Your task to perform on an android device: check data usage Image 0: 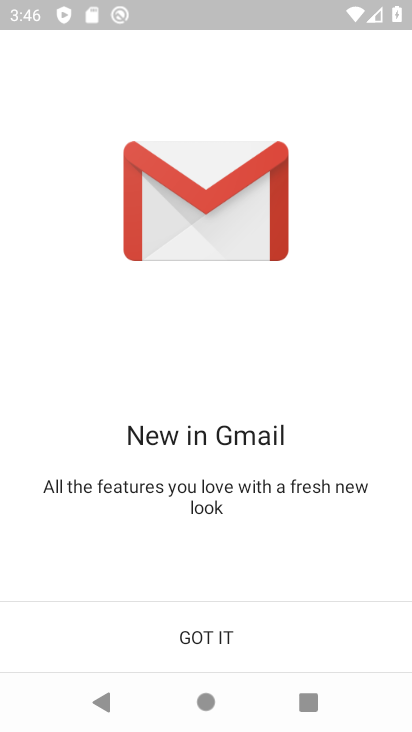
Step 0: press home button
Your task to perform on an android device: check data usage Image 1: 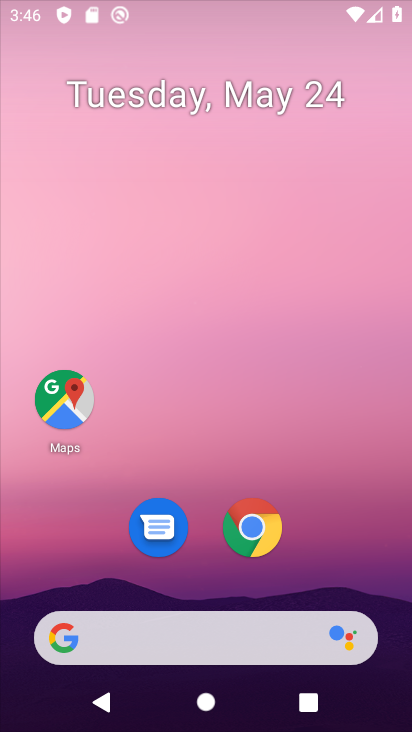
Step 1: drag from (250, 673) to (327, 128)
Your task to perform on an android device: check data usage Image 2: 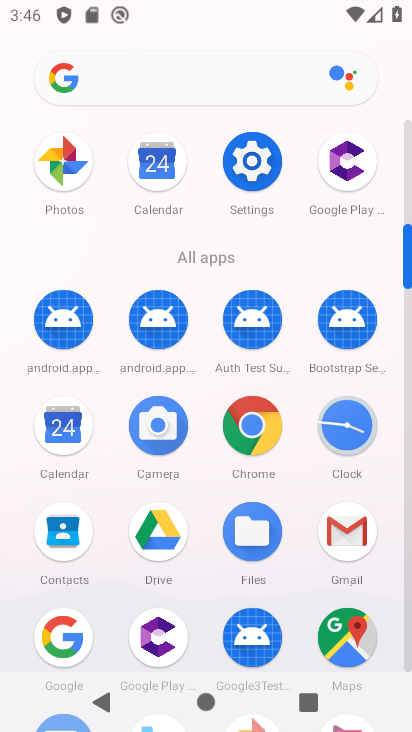
Step 2: click (255, 173)
Your task to perform on an android device: check data usage Image 3: 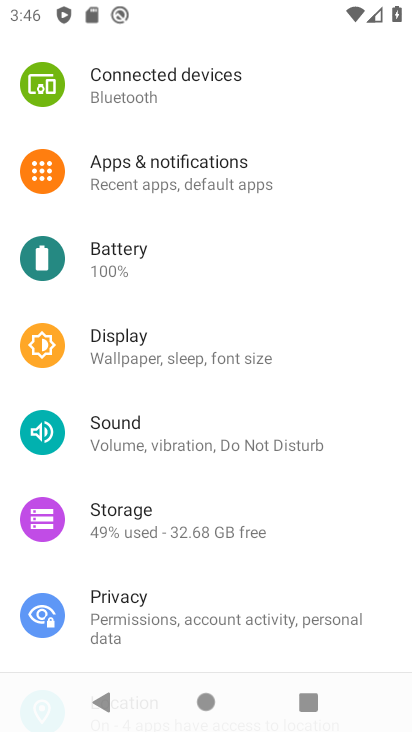
Step 3: drag from (181, 338) to (199, 475)
Your task to perform on an android device: check data usage Image 4: 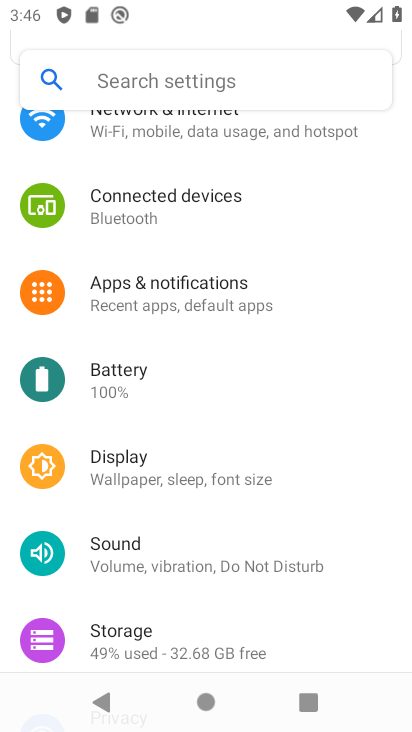
Step 4: click (171, 84)
Your task to perform on an android device: check data usage Image 5: 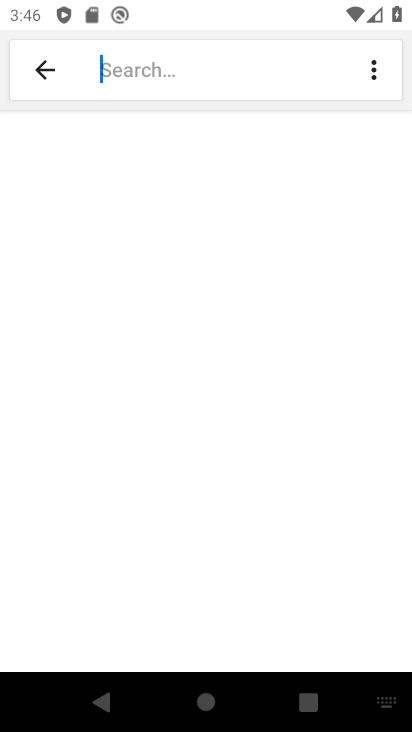
Step 5: click (393, 710)
Your task to perform on an android device: check data usage Image 6: 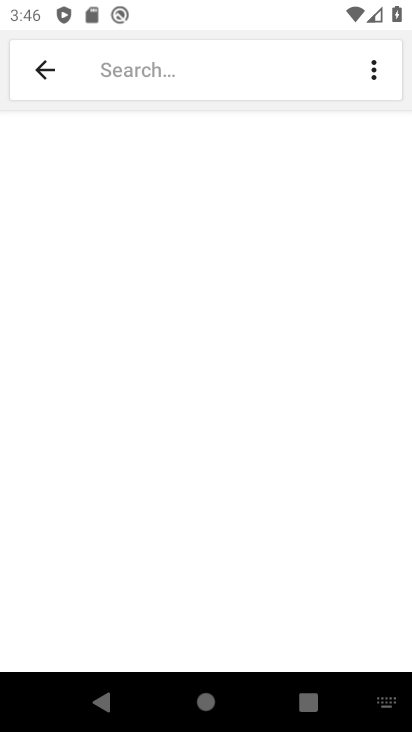
Step 6: click (393, 710)
Your task to perform on an android device: check data usage Image 7: 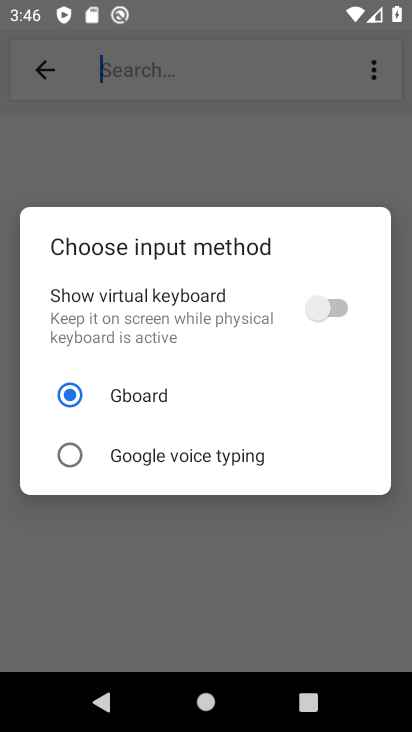
Step 7: click (322, 299)
Your task to perform on an android device: check data usage Image 8: 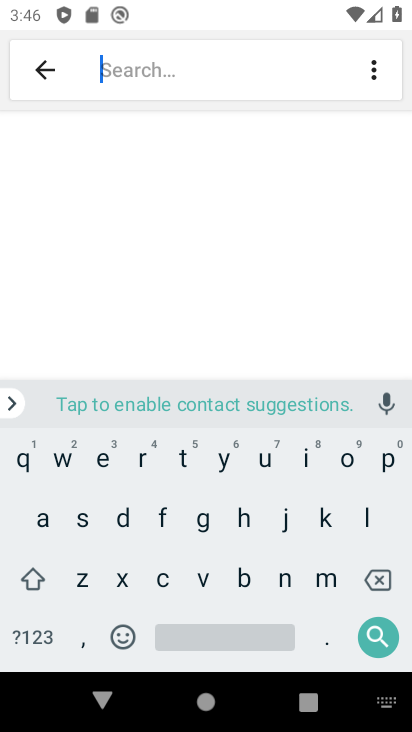
Step 8: click (122, 524)
Your task to perform on an android device: check data usage Image 9: 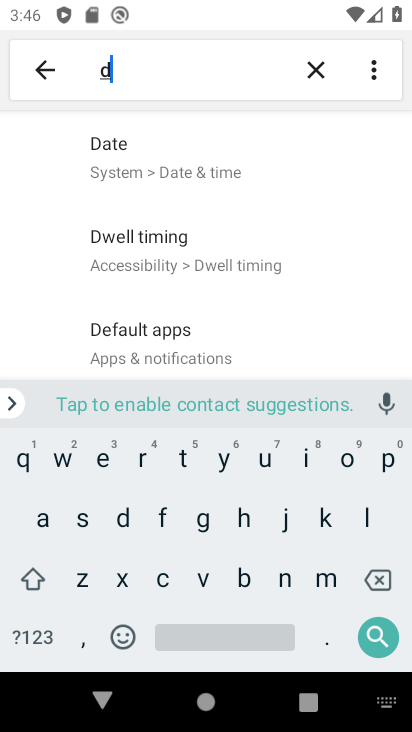
Step 9: click (44, 522)
Your task to perform on an android device: check data usage Image 10: 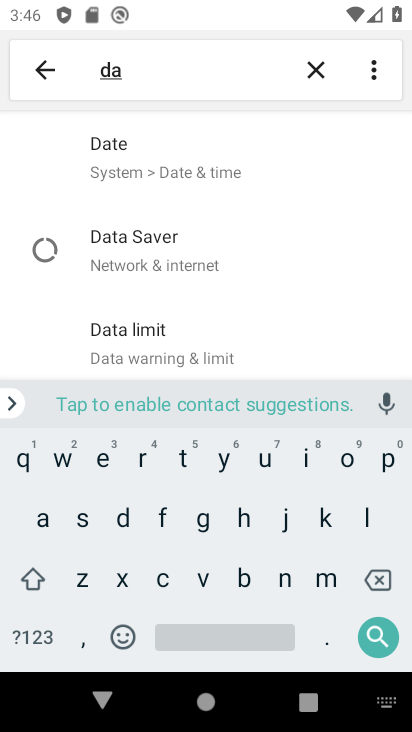
Step 10: click (175, 462)
Your task to perform on an android device: check data usage Image 11: 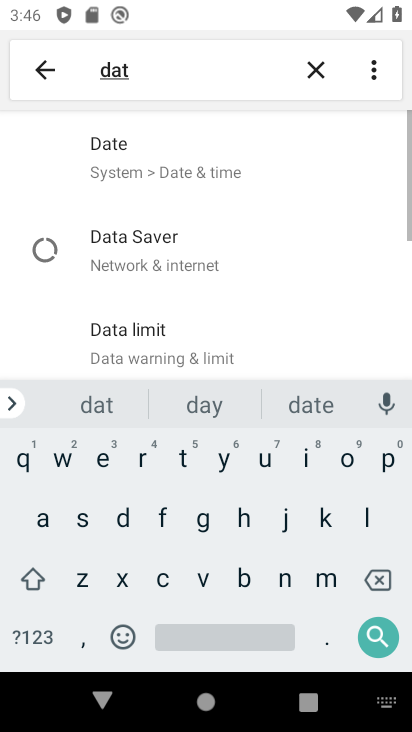
Step 11: click (41, 522)
Your task to perform on an android device: check data usage Image 12: 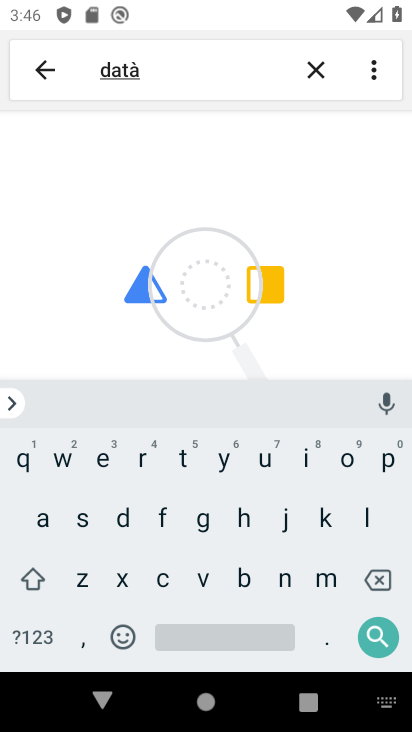
Step 12: click (225, 642)
Your task to perform on an android device: check data usage Image 13: 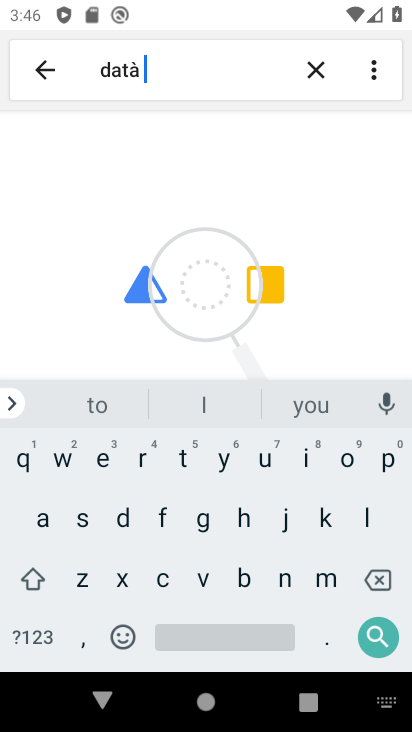
Step 13: click (379, 579)
Your task to perform on an android device: check data usage Image 14: 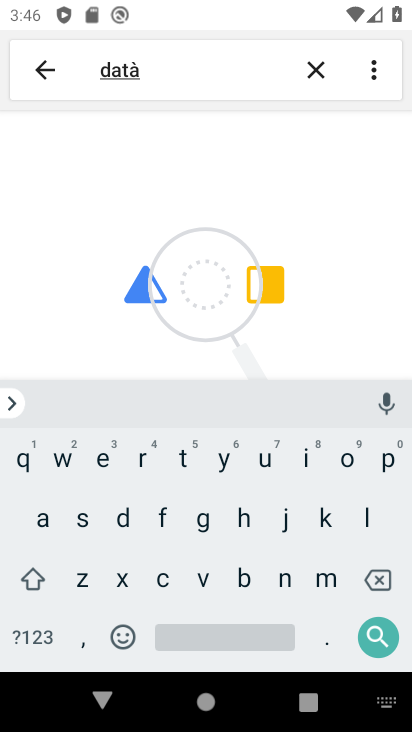
Step 14: click (379, 579)
Your task to perform on an android device: check data usage Image 15: 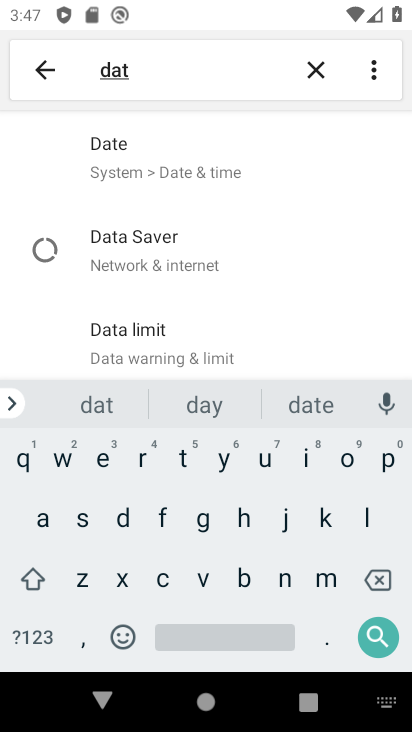
Step 15: click (40, 510)
Your task to perform on an android device: check data usage Image 16: 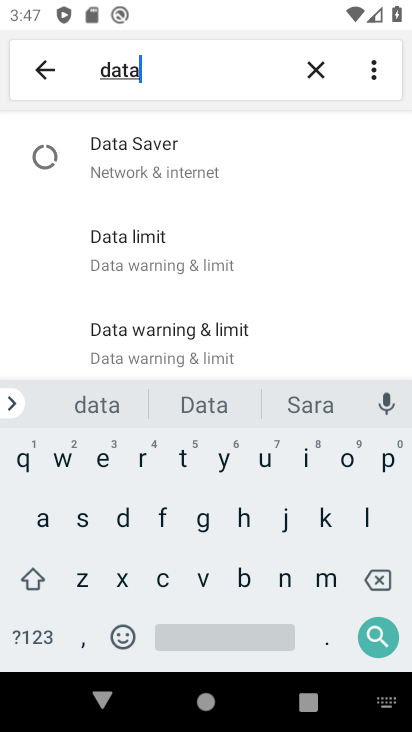
Step 16: click (206, 643)
Your task to perform on an android device: check data usage Image 17: 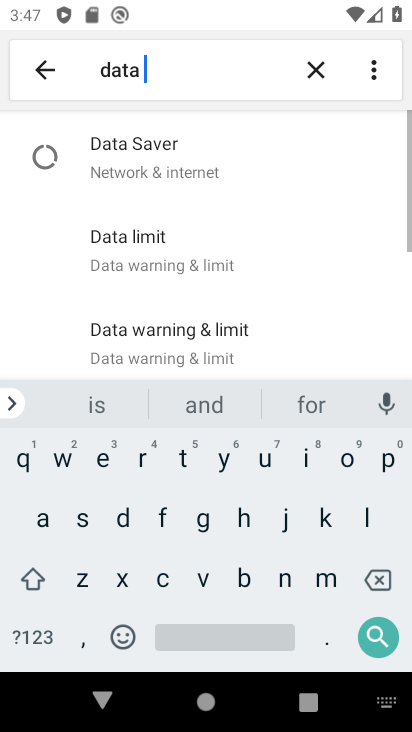
Step 17: click (262, 462)
Your task to perform on an android device: check data usage Image 18: 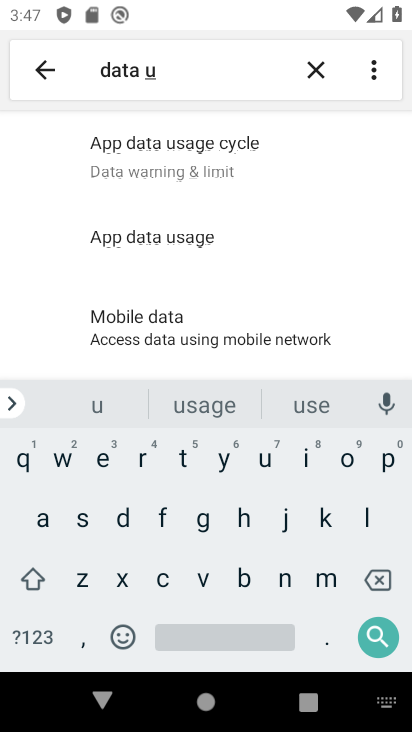
Step 18: click (215, 251)
Your task to perform on an android device: check data usage Image 19: 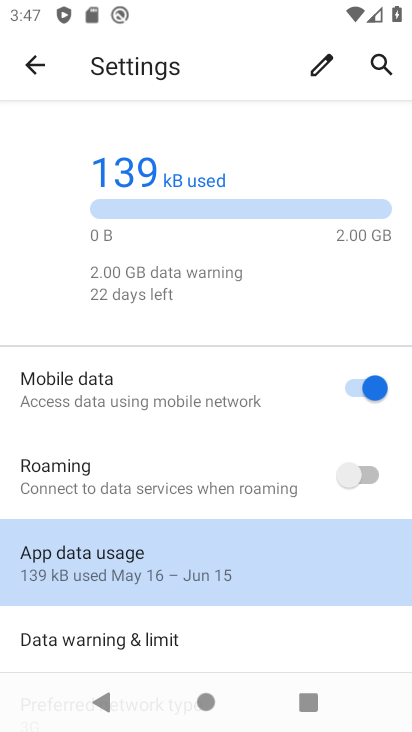
Step 19: click (181, 526)
Your task to perform on an android device: check data usage Image 20: 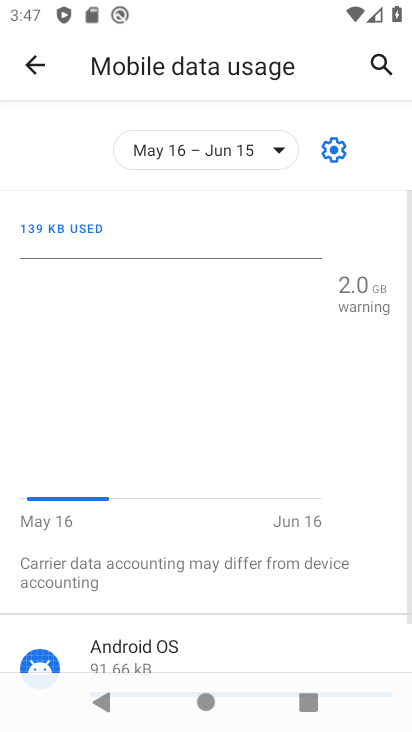
Step 20: task complete